Your task to perform on an android device: turn on the 12-hour format for clock Image 0: 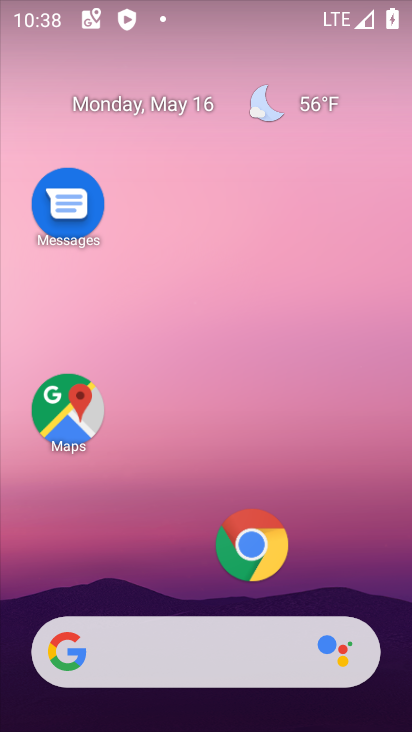
Step 0: drag from (214, 600) to (336, 56)
Your task to perform on an android device: turn on the 12-hour format for clock Image 1: 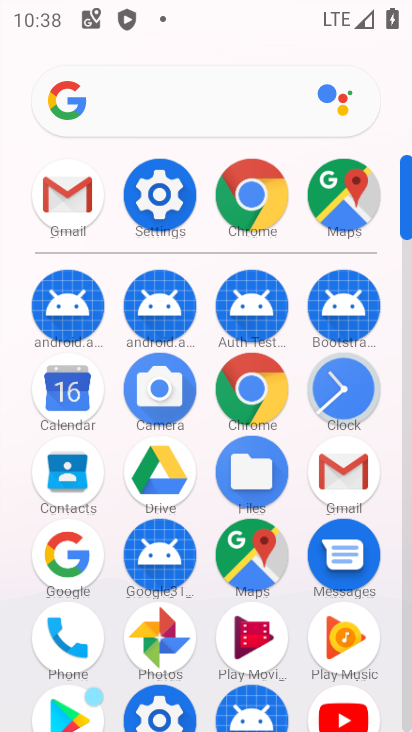
Step 1: click (340, 380)
Your task to perform on an android device: turn on the 12-hour format for clock Image 2: 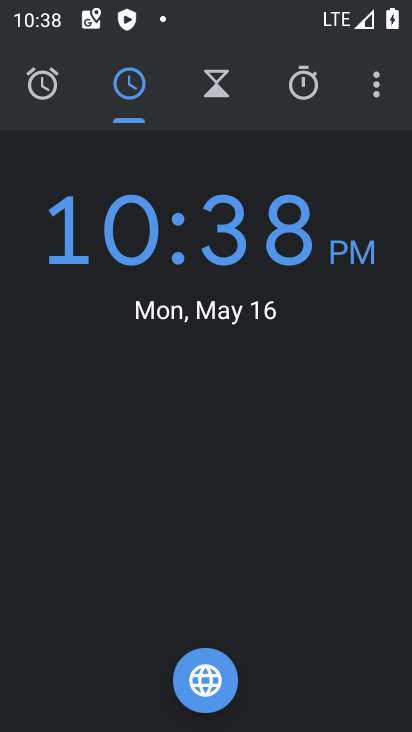
Step 2: click (372, 102)
Your task to perform on an android device: turn on the 12-hour format for clock Image 3: 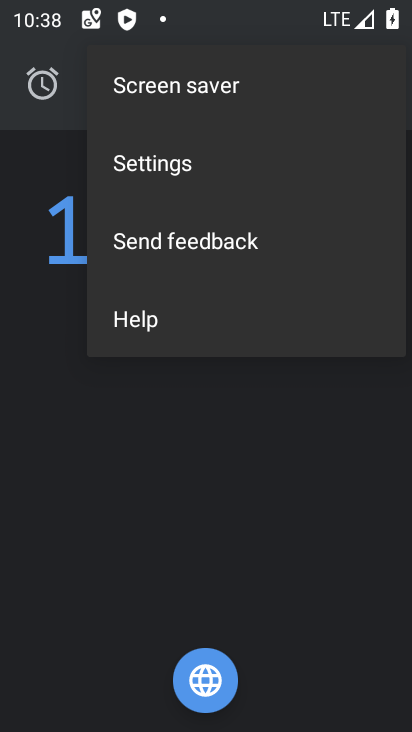
Step 3: click (129, 170)
Your task to perform on an android device: turn on the 12-hour format for clock Image 4: 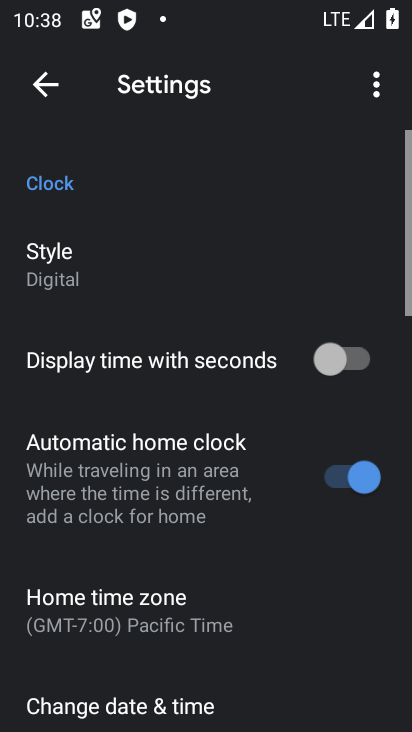
Step 4: drag from (167, 575) to (150, 200)
Your task to perform on an android device: turn on the 12-hour format for clock Image 5: 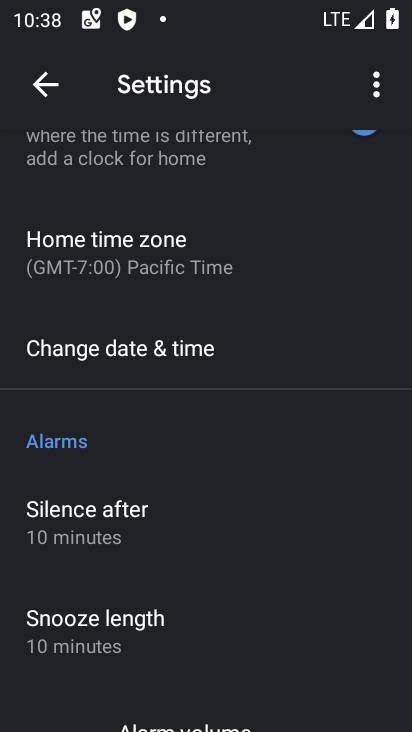
Step 5: click (123, 358)
Your task to perform on an android device: turn on the 12-hour format for clock Image 6: 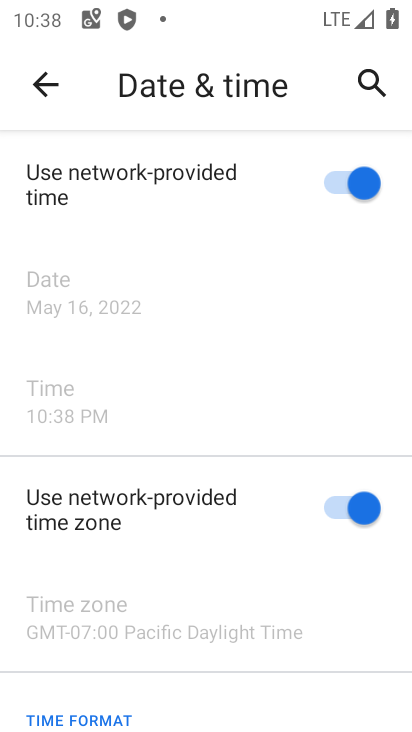
Step 6: task complete